Your task to perform on an android device: all mails in gmail Image 0: 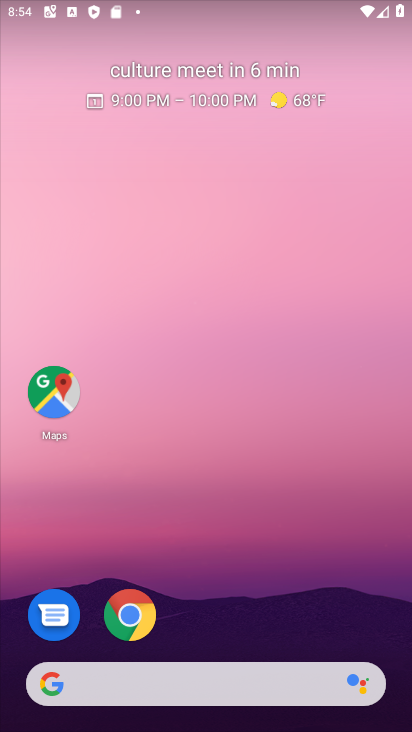
Step 0: drag from (387, 665) to (369, 124)
Your task to perform on an android device: all mails in gmail Image 1: 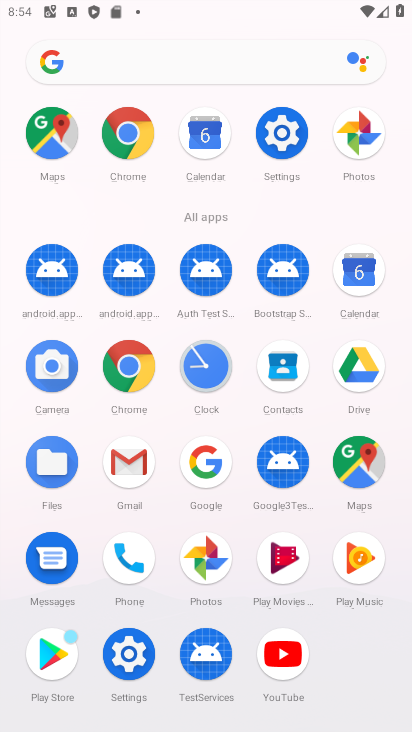
Step 1: click (229, 458)
Your task to perform on an android device: all mails in gmail Image 2: 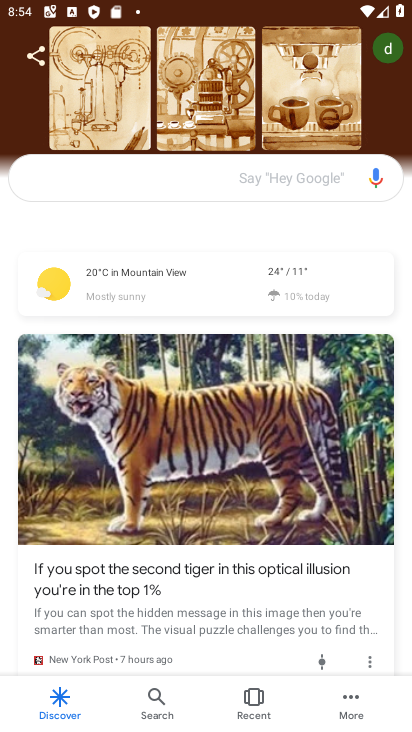
Step 2: task complete